Your task to perform on an android device: Open the Play Movies app and select the watchlist tab. Image 0: 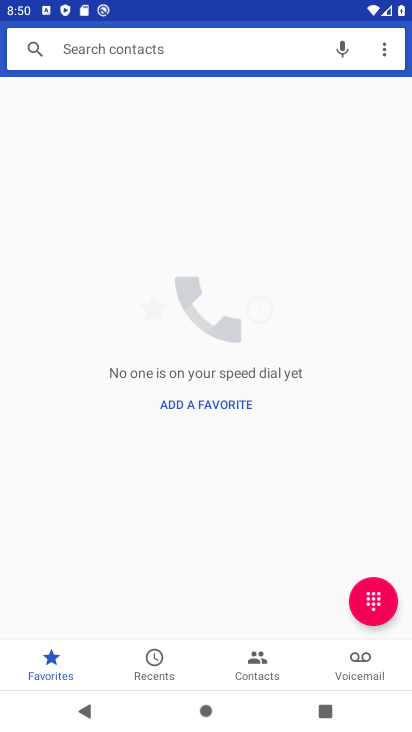
Step 0: press home button
Your task to perform on an android device: Open the Play Movies app and select the watchlist tab. Image 1: 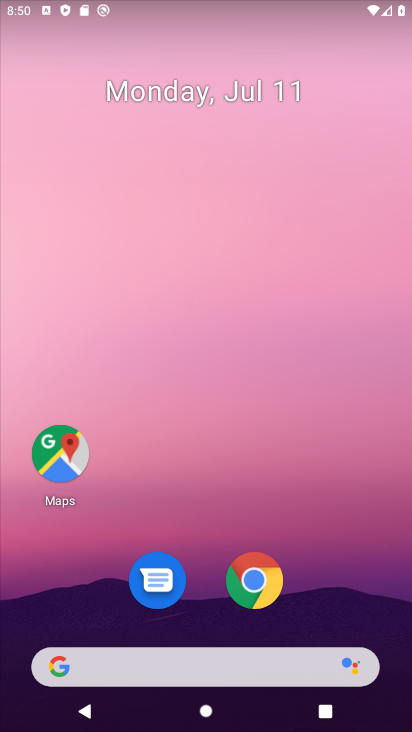
Step 1: drag from (204, 539) to (175, 44)
Your task to perform on an android device: Open the Play Movies app and select the watchlist tab. Image 2: 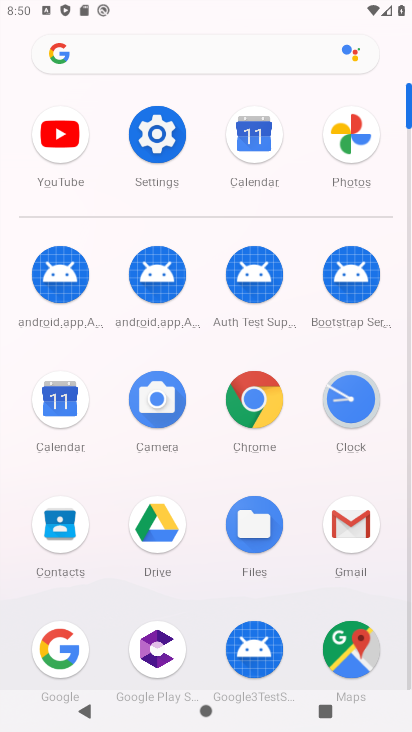
Step 2: drag from (204, 468) to (186, 133)
Your task to perform on an android device: Open the Play Movies app and select the watchlist tab. Image 3: 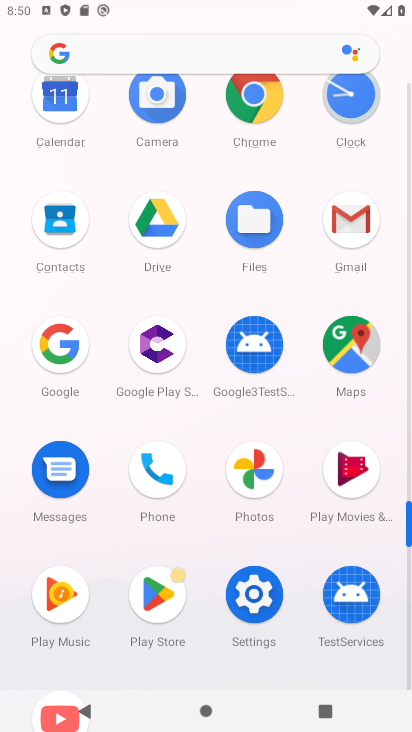
Step 3: click (341, 469)
Your task to perform on an android device: Open the Play Movies app and select the watchlist tab. Image 4: 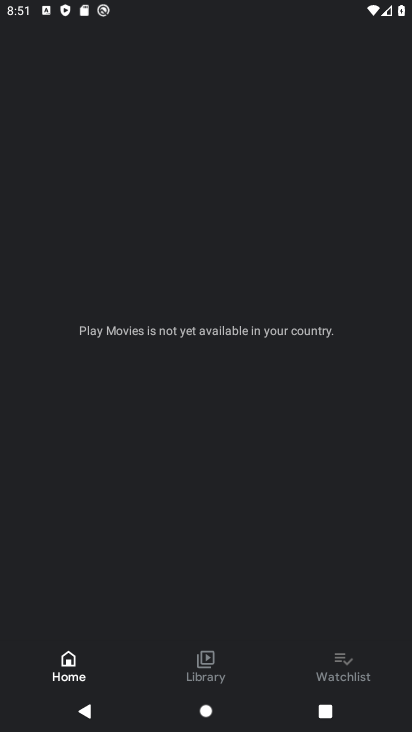
Step 4: click (345, 670)
Your task to perform on an android device: Open the Play Movies app and select the watchlist tab. Image 5: 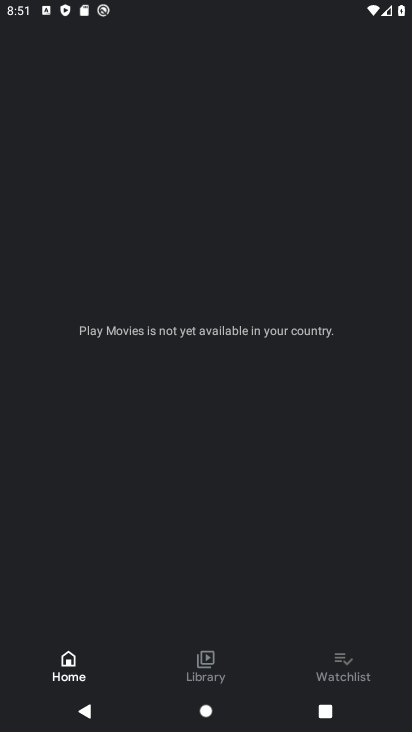
Step 5: click (347, 661)
Your task to perform on an android device: Open the Play Movies app and select the watchlist tab. Image 6: 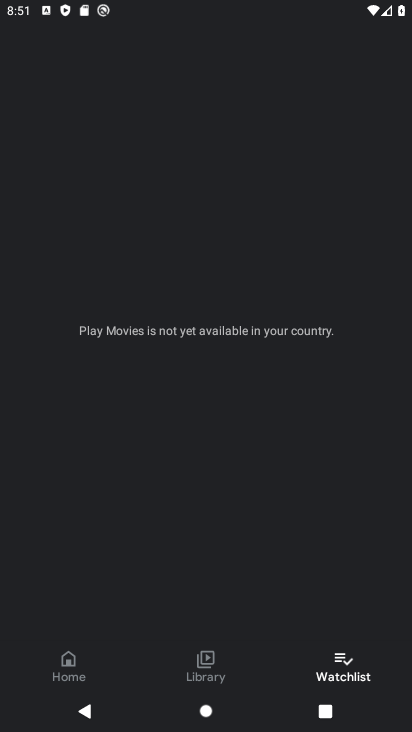
Step 6: task complete